Your task to perform on an android device: toggle airplane mode Image 0: 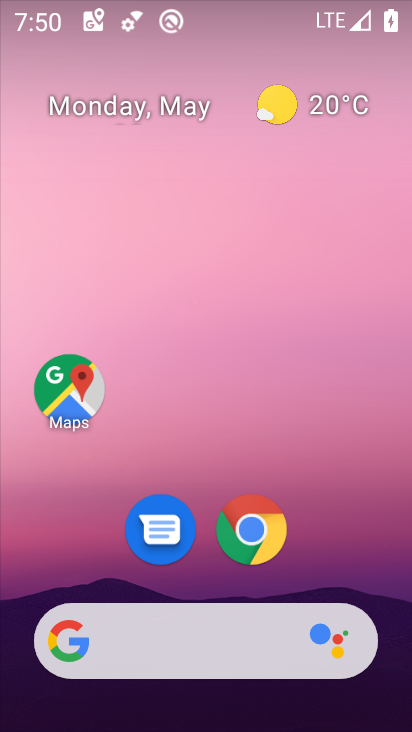
Step 0: drag from (372, 16) to (255, 371)
Your task to perform on an android device: toggle airplane mode Image 1: 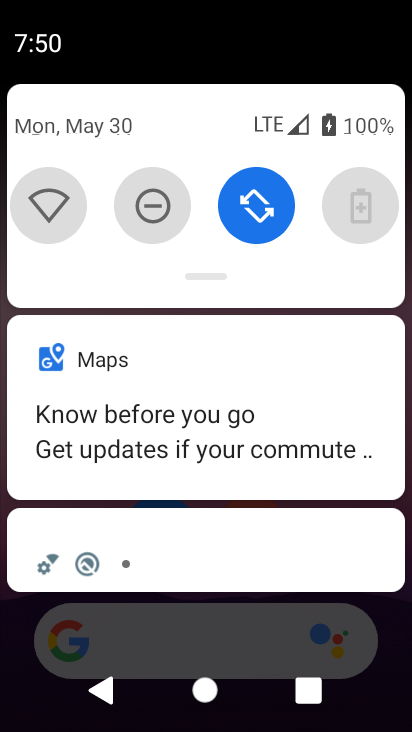
Step 1: drag from (279, 211) to (250, 319)
Your task to perform on an android device: toggle airplane mode Image 2: 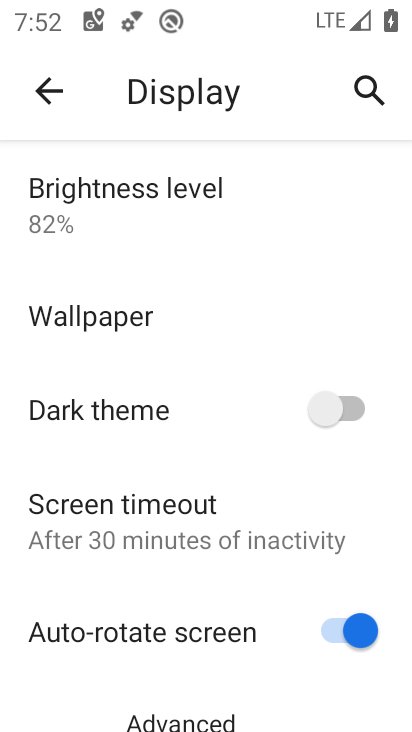
Step 2: press home button
Your task to perform on an android device: toggle airplane mode Image 3: 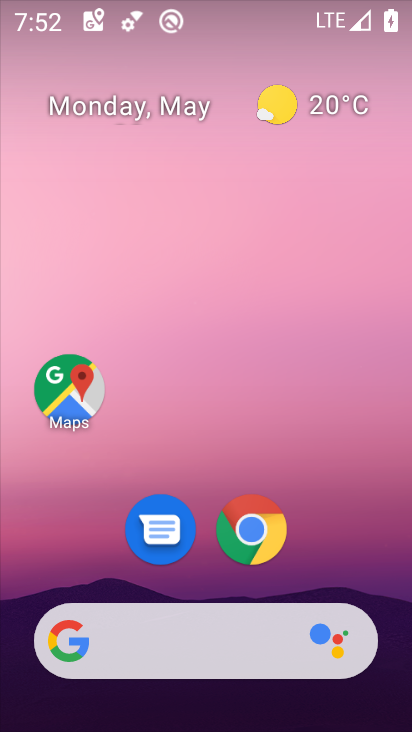
Step 3: drag from (86, 587) to (342, 97)
Your task to perform on an android device: toggle airplane mode Image 4: 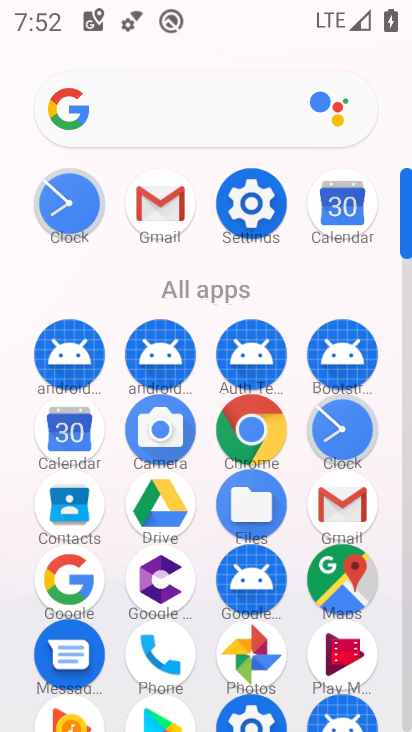
Step 4: click (259, 217)
Your task to perform on an android device: toggle airplane mode Image 5: 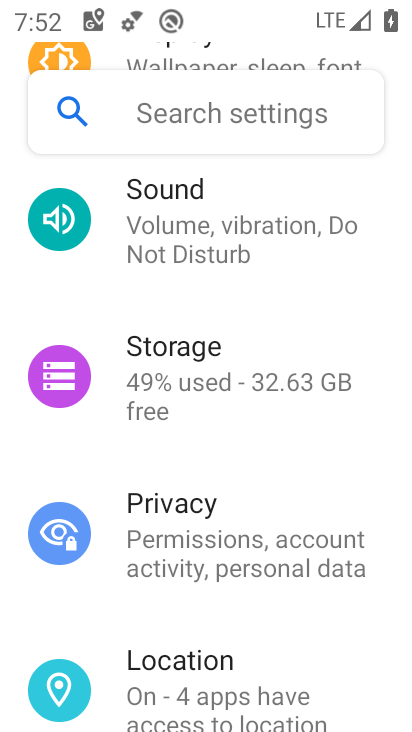
Step 5: drag from (200, 186) to (69, 606)
Your task to perform on an android device: toggle airplane mode Image 6: 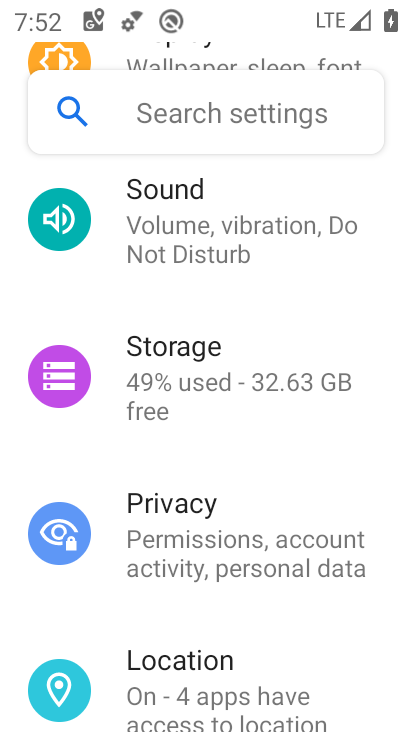
Step 6: drag from (280, 268) to (107, 644)
Your task to perform on an android device: toggle airplane mode Image 7: 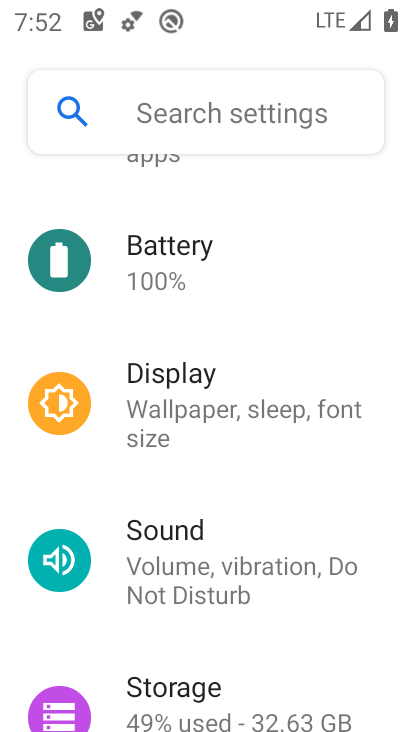
Step 7: drag from (319, 285) to (189, 641)
Your task to perform on an android device: toggle airplane mode Image 8: 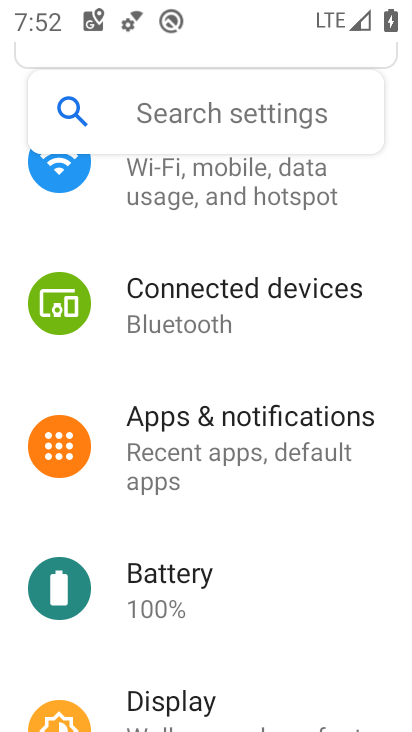
Step 8: drag from (275, 218) to (214, 552)
Your task to perform on an android device: toggle airplane mode Image 9: 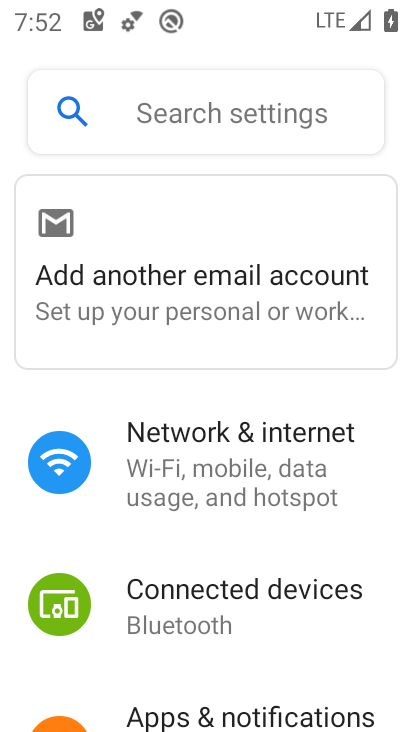
Step 9: click (263, 464)
Your task to perform on an android device: toggle airplane mode Image 10: 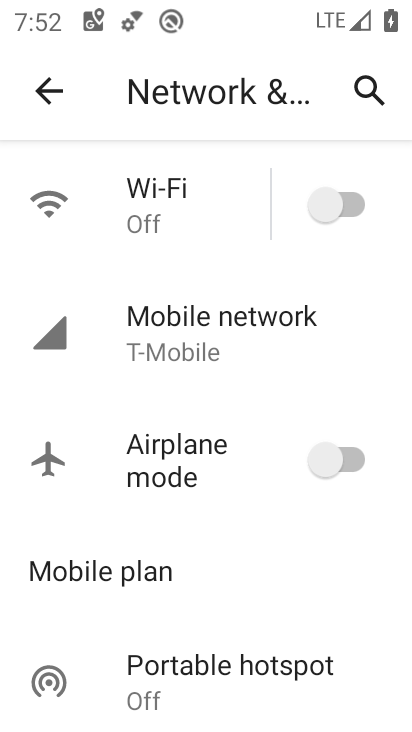
Step 10: click (325, 468)
Your task to perform on an android device: toggle airplane mode Image 11: 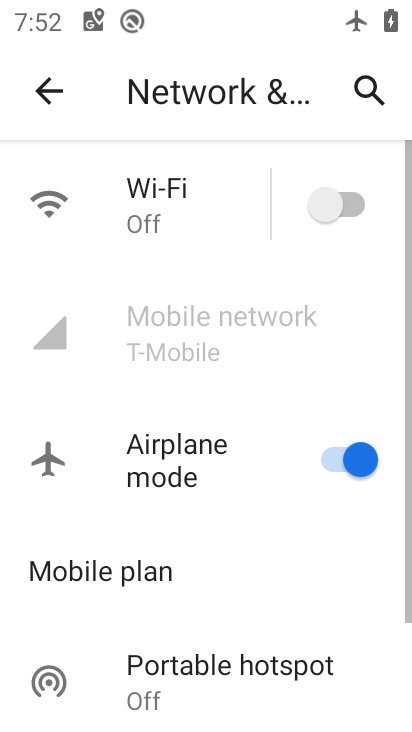
Step 11: task complete